Your task to perform on an android device: What's a good restaurant in Boston? Image 0: 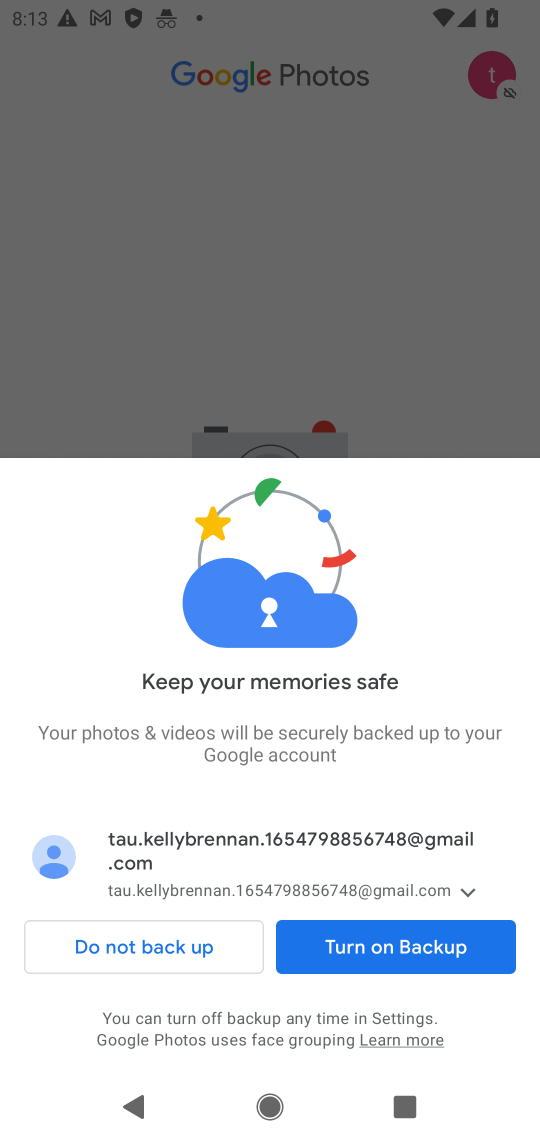
Step 0: press home button
Your task to perform on an android device: What's a good restaurant in Boston? Image 1: 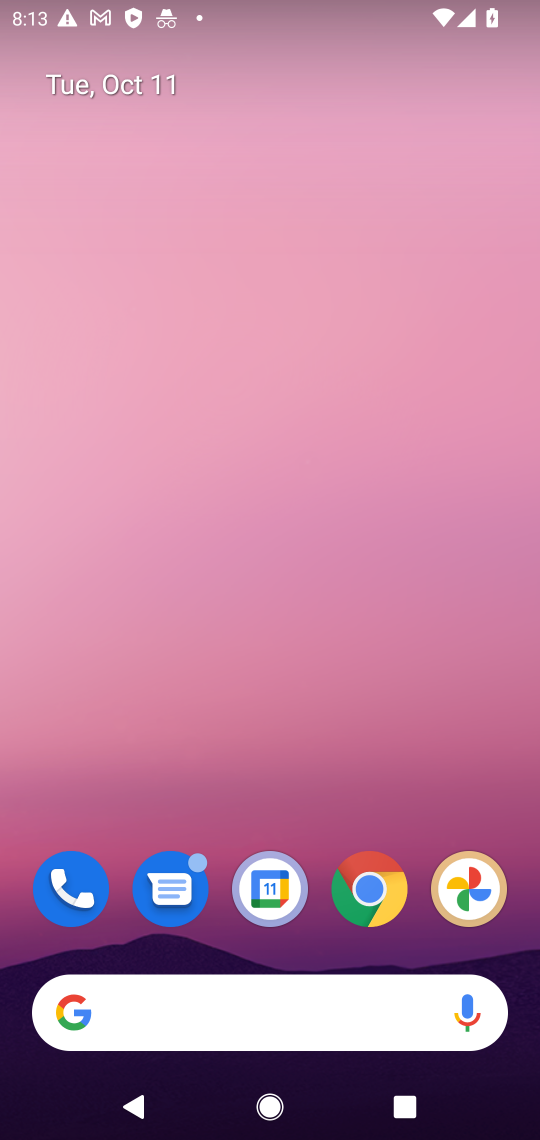
Step 1: click (270, 997)
Your task to perform on an android device: What's a good restaurant in Boston? Image 2: 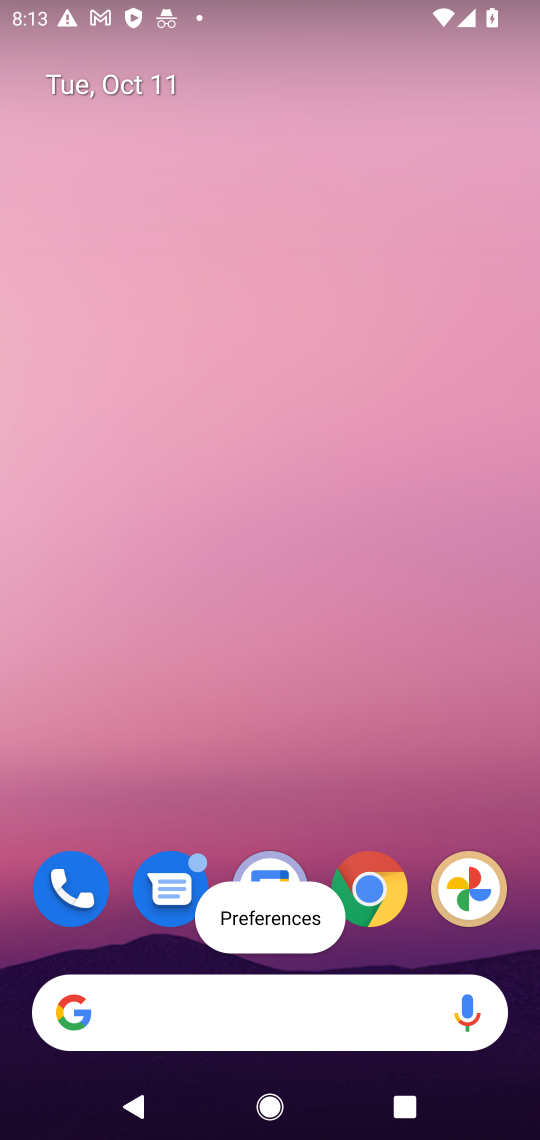
Step 2: click (263, 1036)
Your task to perform on an android device: What's a good restaurant in Boston? Image 3: 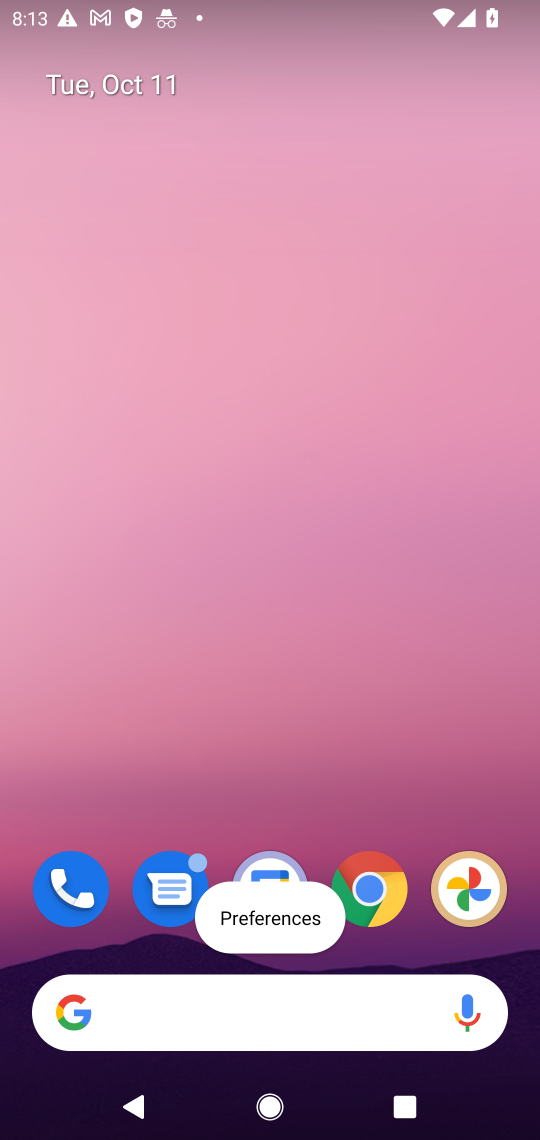
Step 3: click (237, 1030)
Your task to perform on an android device: What's a good restaurant in Boston? Image 4: 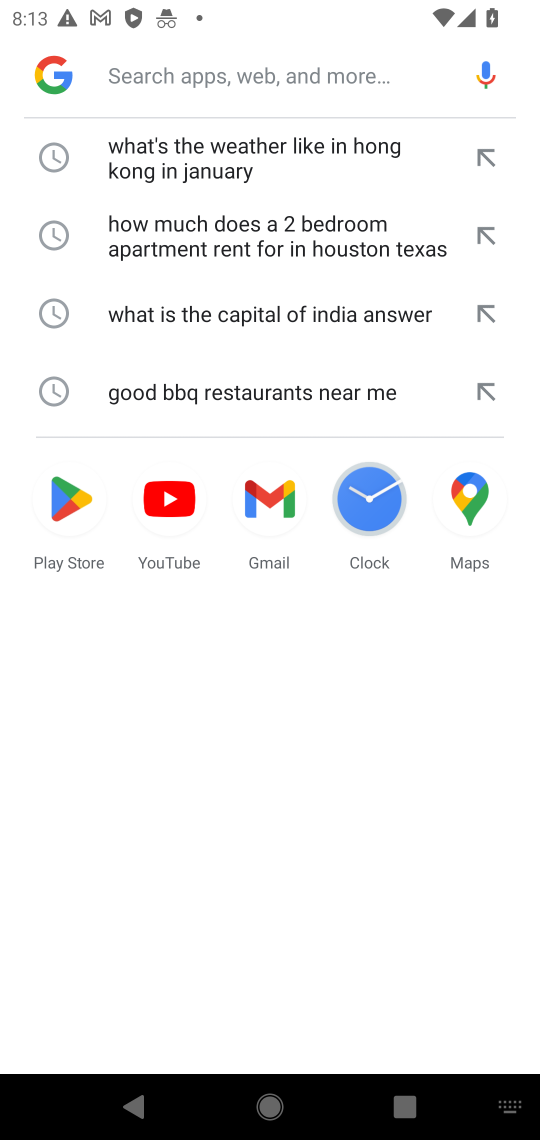
Step 4: click (154, 66)
Your task to perform on an android device: What's a good restaurant in Boston? Image 5: 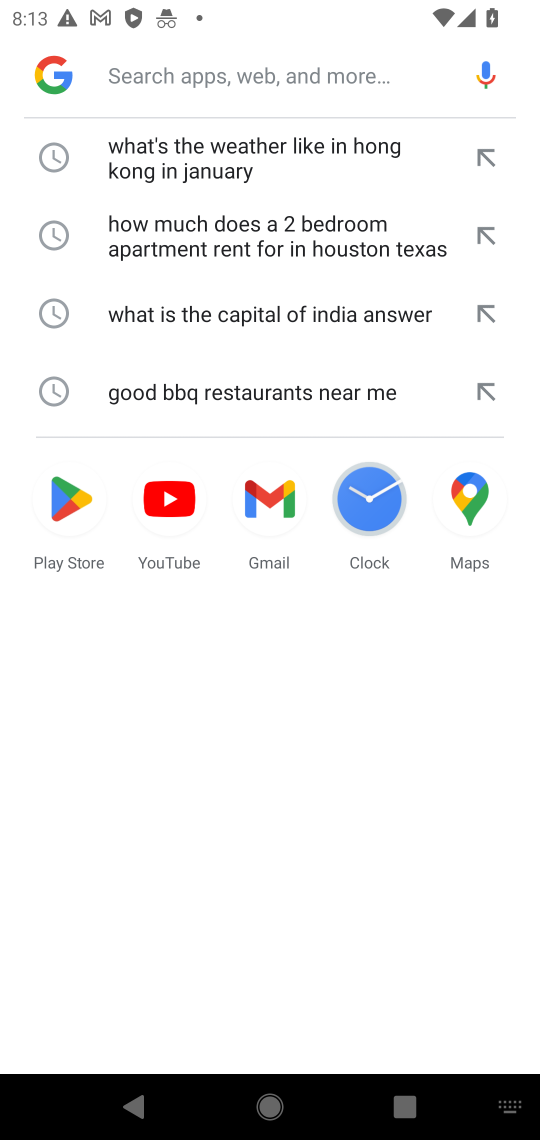
Step 5: type "What's a good restaurant in Boston?"
Your task to perform on an android device: What's a good restaurant in Boston? Image 6: 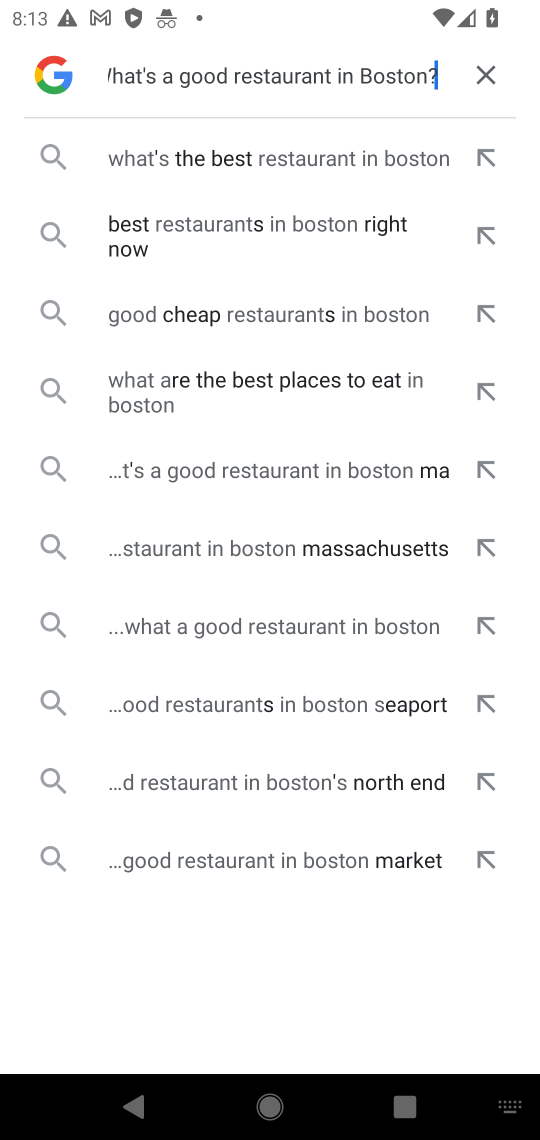
Step 6: click (292, 158)
Your task to perform on an android device: What's a good restaurant in Boston? Image 7: 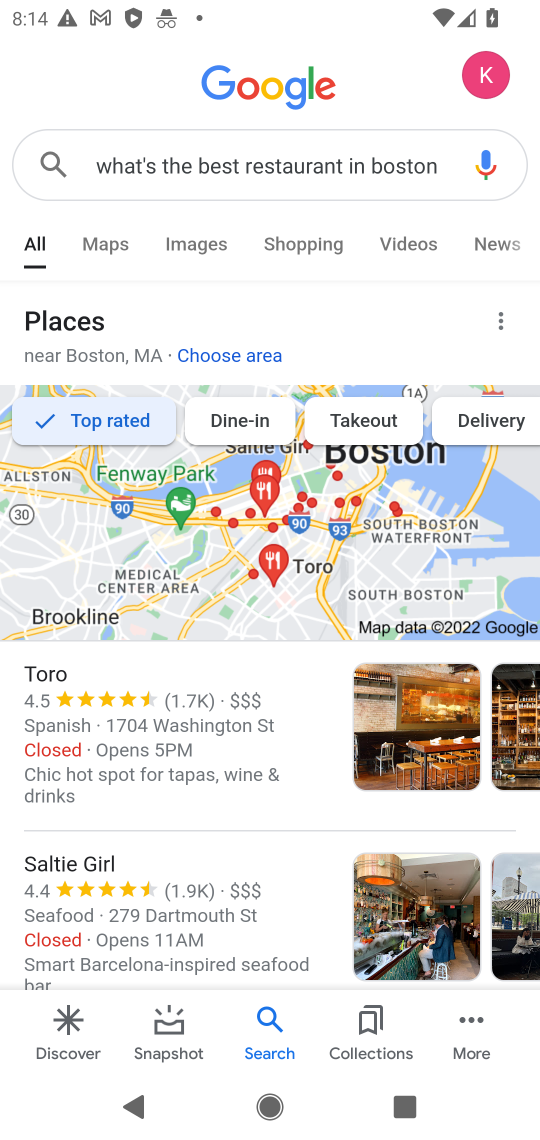
Step 7: task complete